Your task to perform on an android device: Go to eBay Image 0: 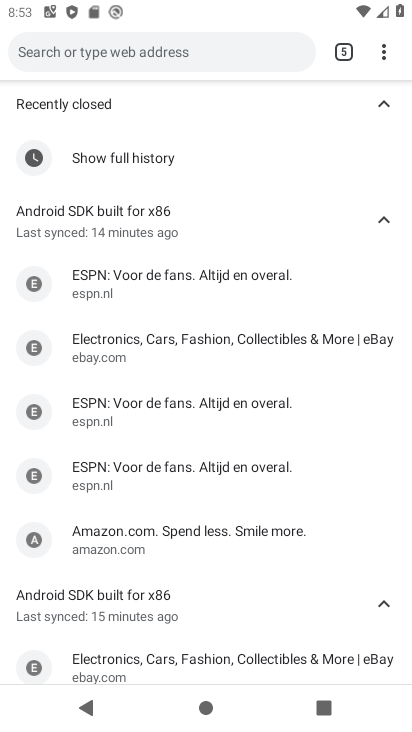
Step 0: press home button
Your task to perform on an android device: Go to eBay Image 1: 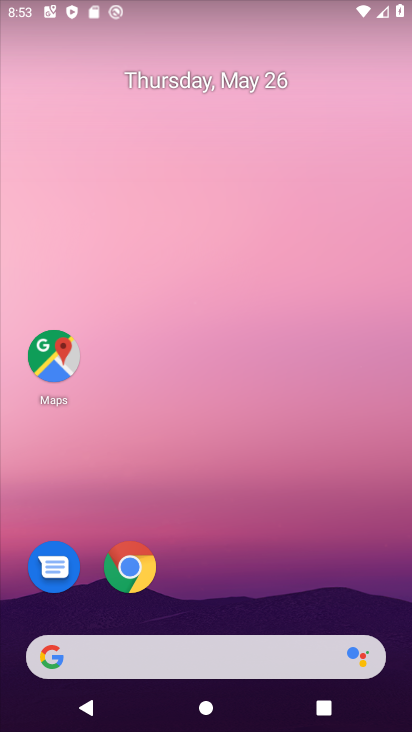
Step 1: click (129, 570)
Your task to perform on an android device: Go to eBay Image 2: 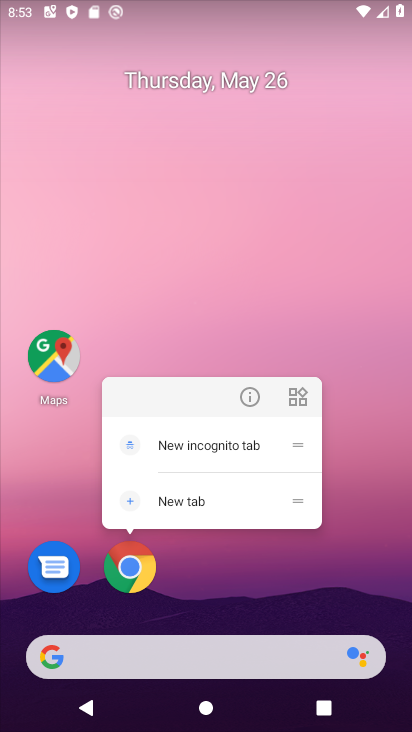
Step 2: click (140, 565)
Your task to perform on an android device: Go to eBay Image 3: 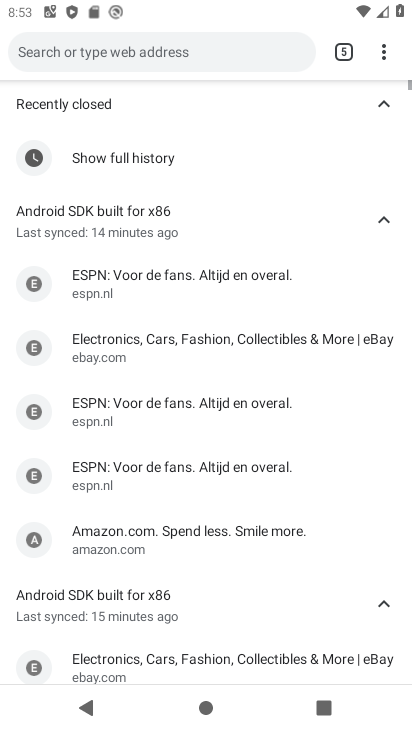
Step 3: drag from (380, 65) to (259, 110)
Your task to perform on an android device: Go to eBay Image 4: 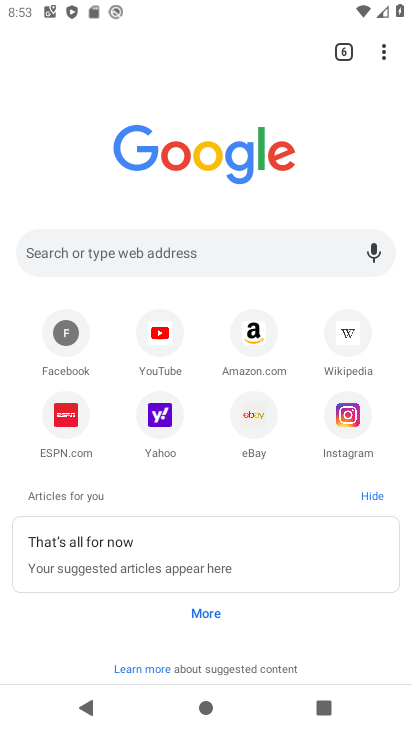
Step 4: click (249, 424)
Your task to perform on an android device: Go to eBay Image 5: 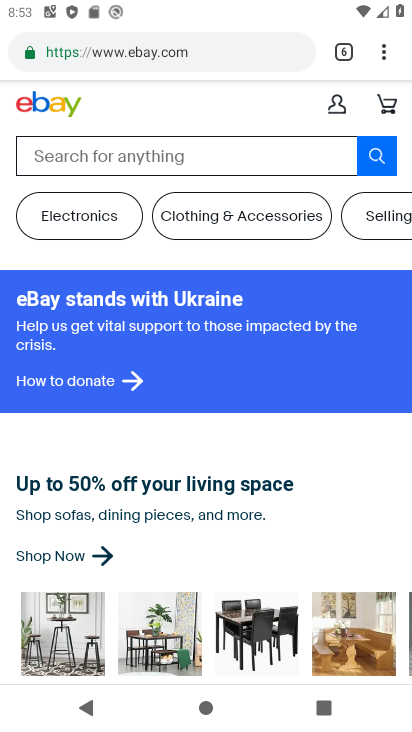
Step 5: task complete